Your task to perform on an android device: toggle pop-ups in chrome Image 0: 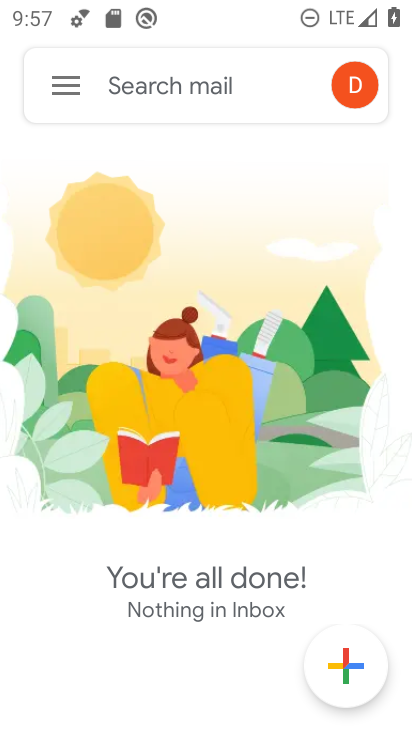
Step 0: press home button
Your task to perform on an android device: toggle pop-ups in chrome Image 1: 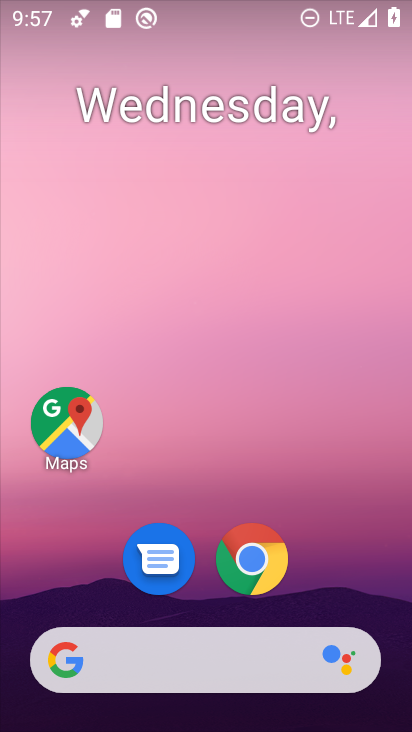
Step 1: click (248, 548)
Your task to perform on an android device: toggle pop-ups in chrome Image 2: 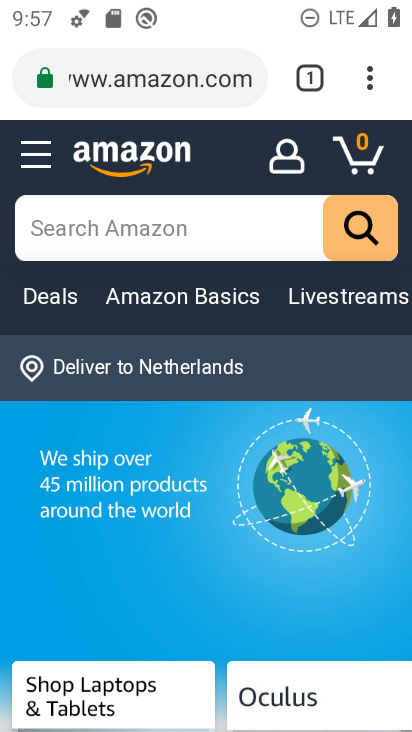
Step 2: click (369, 79)
Your task to perform on an android device: toggle pop-ups in chrome Image 3: 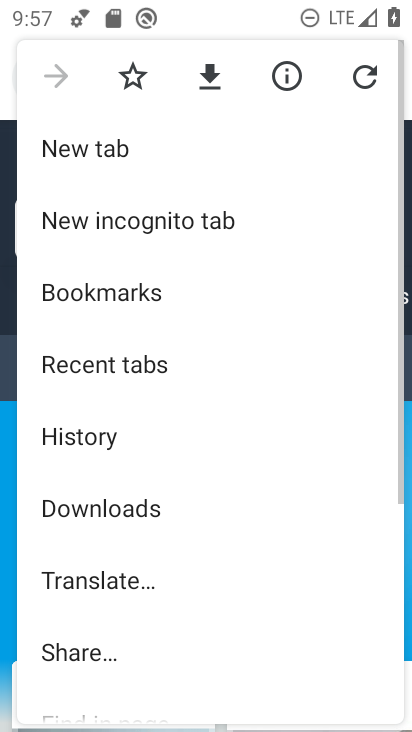
Step 3: click (369, 79)
Your task to perform on an android device: toggle pop-ups in chrome Image 4: 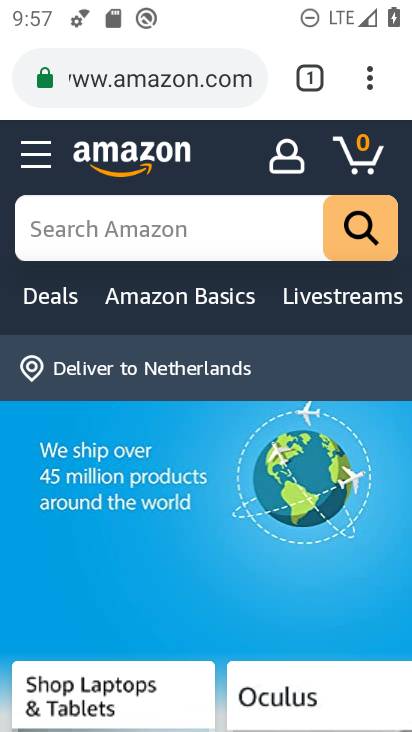
Step 4: click (371, 70)
Your task to perform on an android device: toggle pop-ups in chrome Image 5: 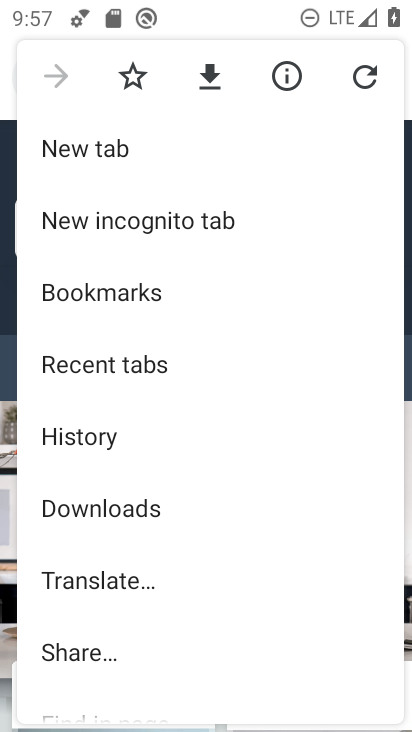
Step 5: drag from (236, 549) to (216, 250)
Your task to perform on an android device: toggle pop-ups in chrome Image 6: 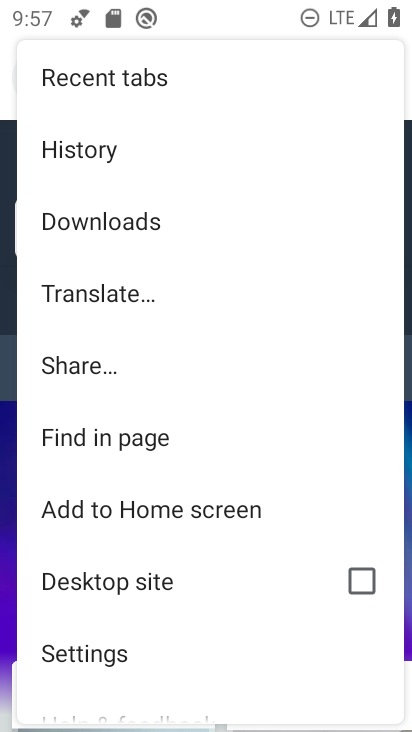
Step 6: click (186, 645)
Your task to perform on an android device: toggle pop-ups in chrome Image 7: 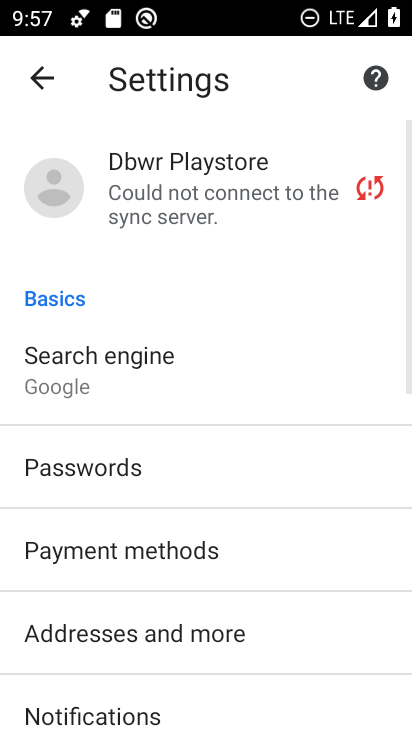
Step 7: drag from (216, 612) to (242, 180)
Your task to perform on an android device: toggle pop-ups in chrome Image 8: 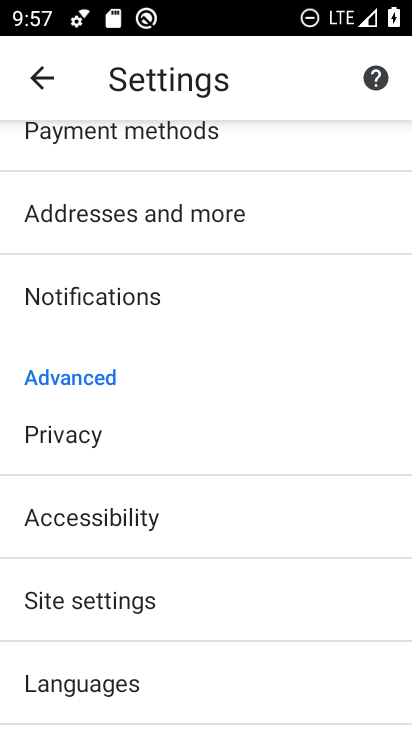
Step 8: click (224, 592)
Your task to perform on an android device: toggle pop-ups in chrome Image 9: 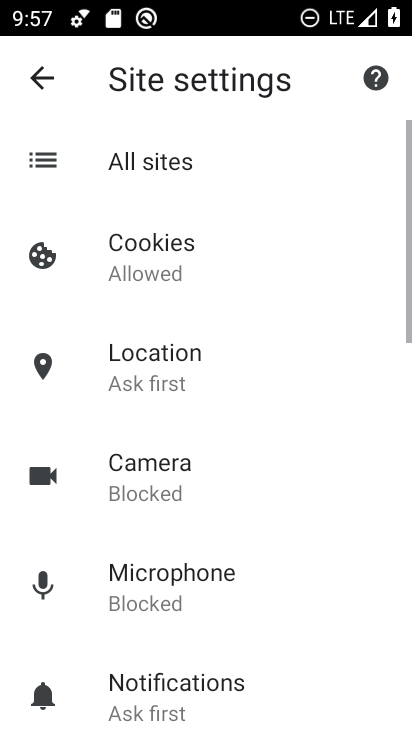
Step 9: drag from (222, 619) to (195, 241)
Your task to perform on an android device: toggle pop-ups in chrome Image 10: 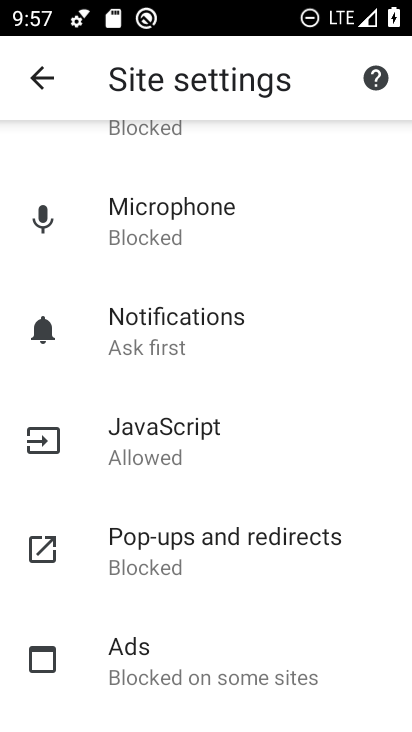
Step 10: click (238, 546)
Your task to perform on an android device: toggle pop-ups in chrome Image 11: 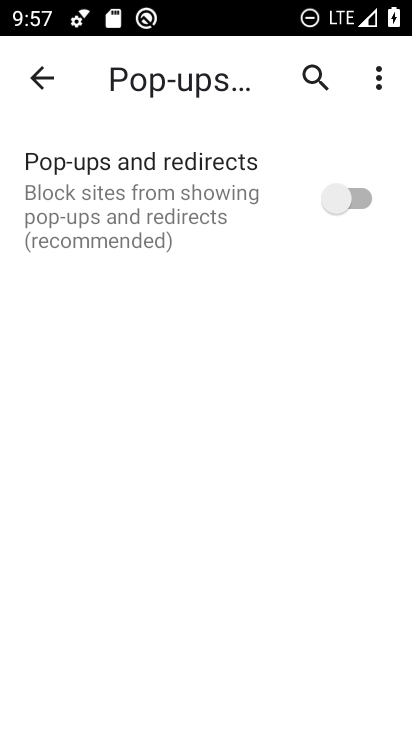
Step 11: click (344, 187)
Your task to perform on an android device: toggle pop-ups in chrome Image 12: 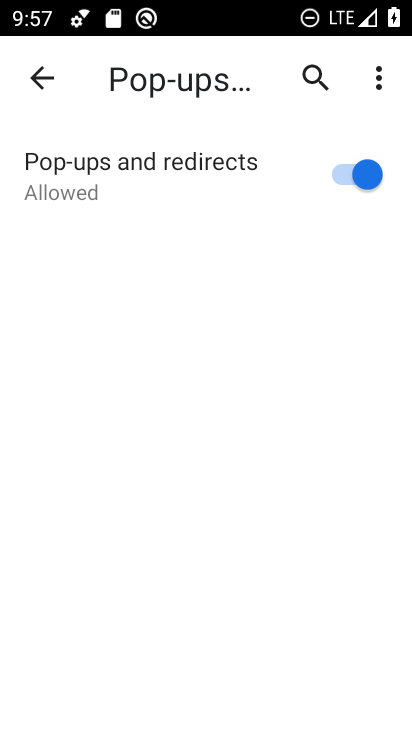
Step 12: task complete